Your task to perform on an android device: turn off sleep mode Image 0: 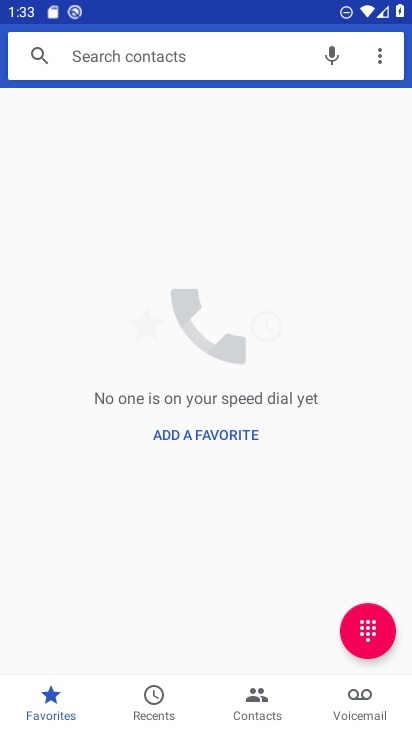
Step 0: press back button
Your task to perform on an android device: turn off sleep mode Image 1: 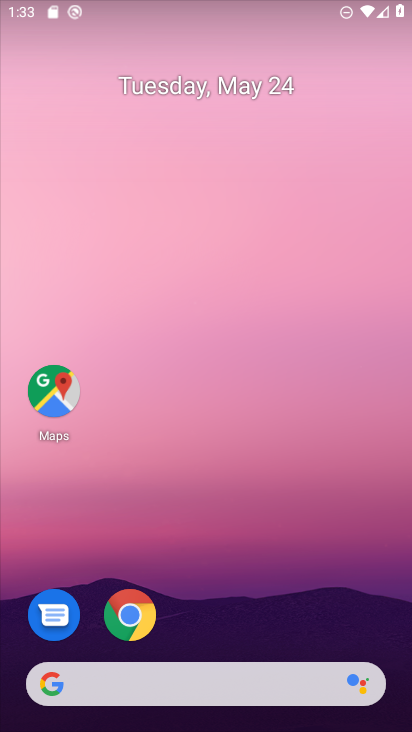
Step 1: drag from (227, 609) to (283, 125)
Your task to perform on an android device: turn off sleep mode Image 2: 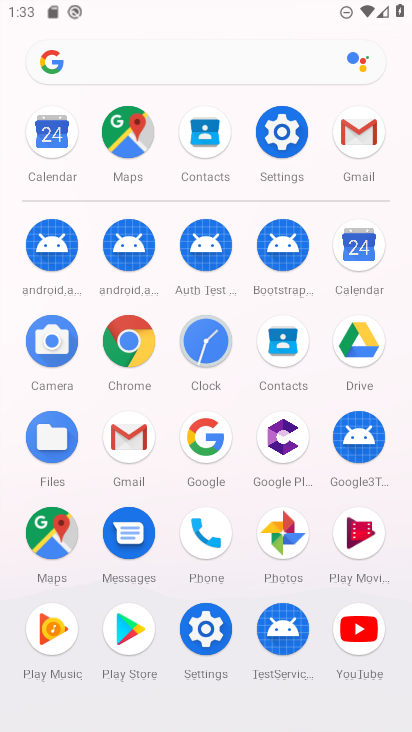
Step 2: click (291, 131)
Your task to perform on an android device: turn off sleep mode Image 3: 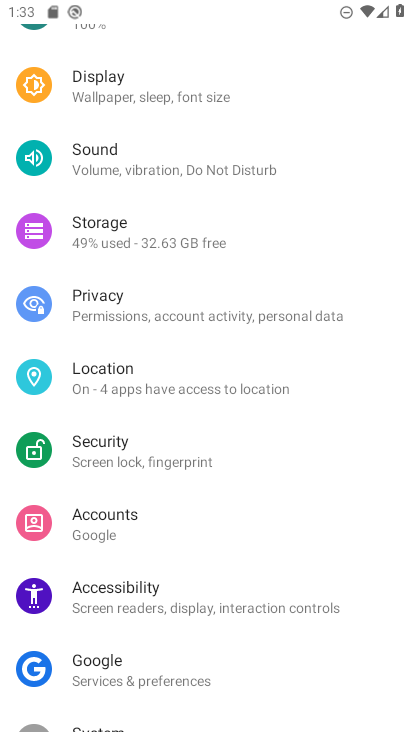
Step 3: drag from (186, 78) to (120, 608)
Your task to perform on an android device: turn off sleep mode Image 4: 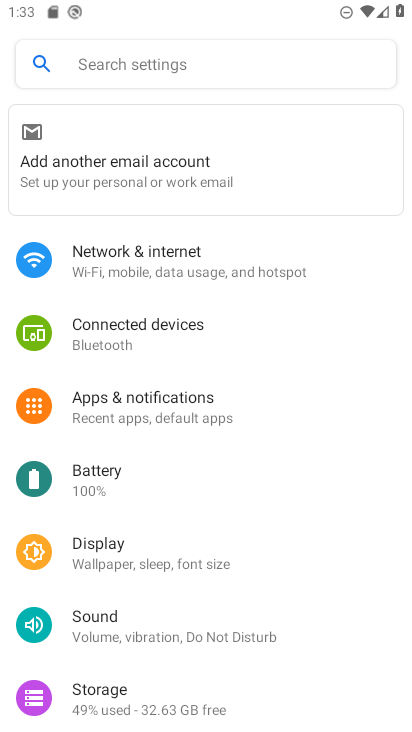
Step 4: click (124, 69)
Your task to perform on an android device: turn off sleep mode Image 5: 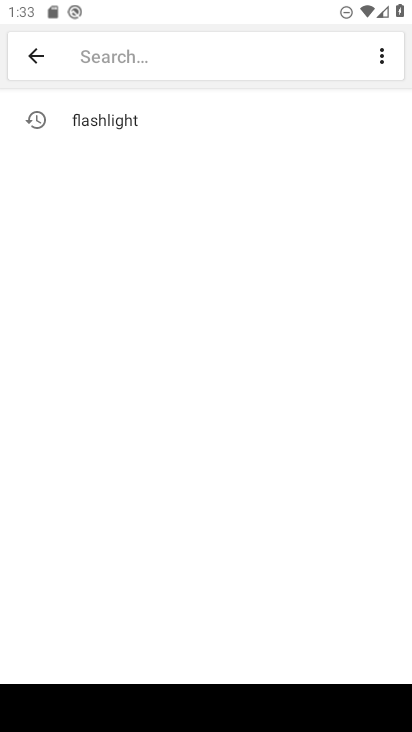
Step 5: type "sleep mode"
Your task to perform on an android device: turn off sleep mode Image 6: 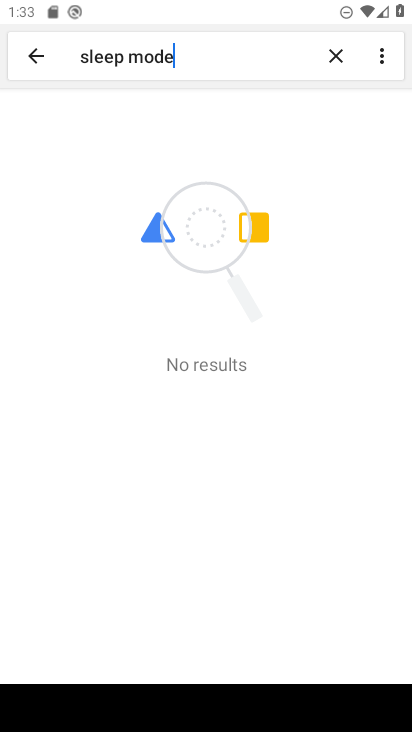
Step 6: task complete